Your task to perform on an android device: set an alarm Image 0: 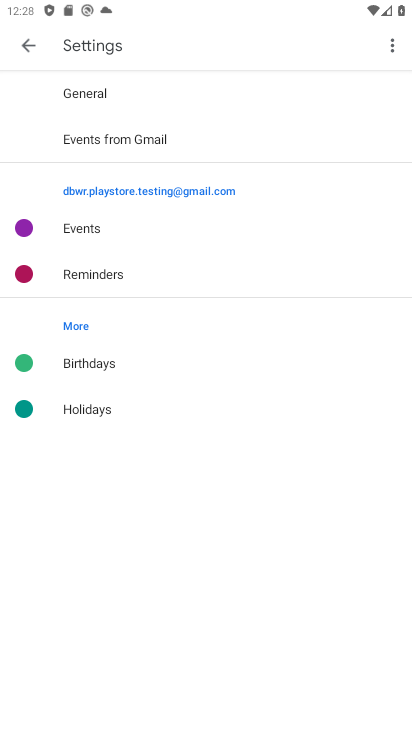
Step 0: press back button
Your task to perform on an android device: set an alarm Image 1: 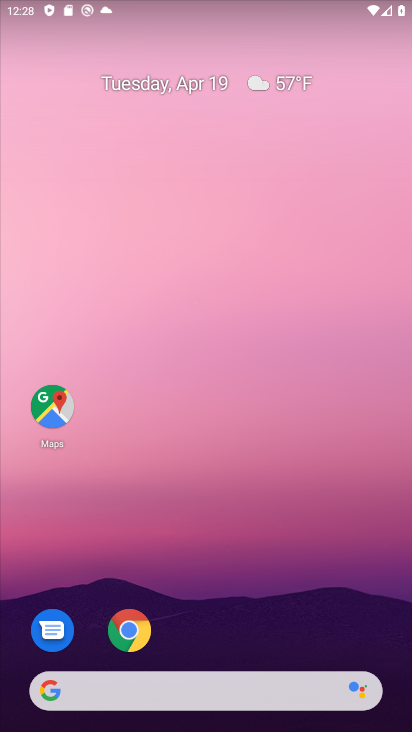
Step 1: drag from (245, 633) to (316, 114)
Your task to perform on an android device: set an alarm Image 2: 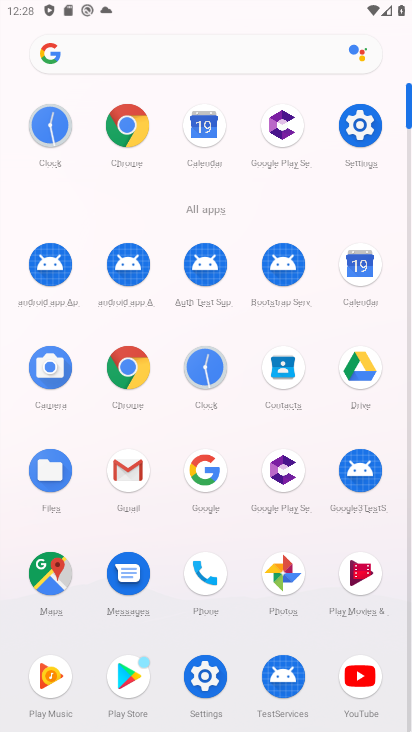
Step 2: click (208, 370)
Your task to perform on an android device: set an alarm Image 3: 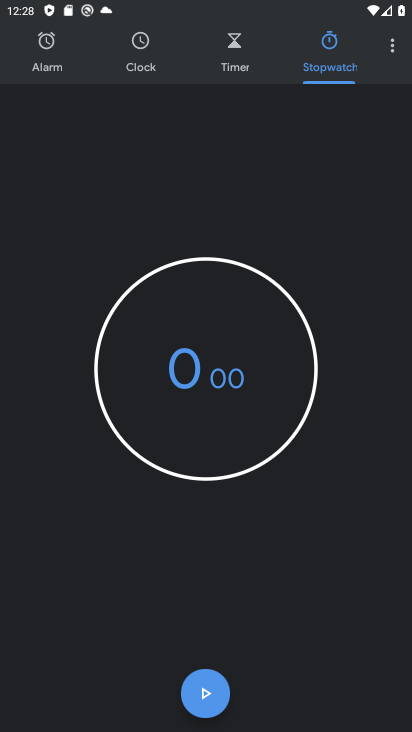
Step 3: click (41, 49)
Your task to perform on an android device: set an alarm Image 4: 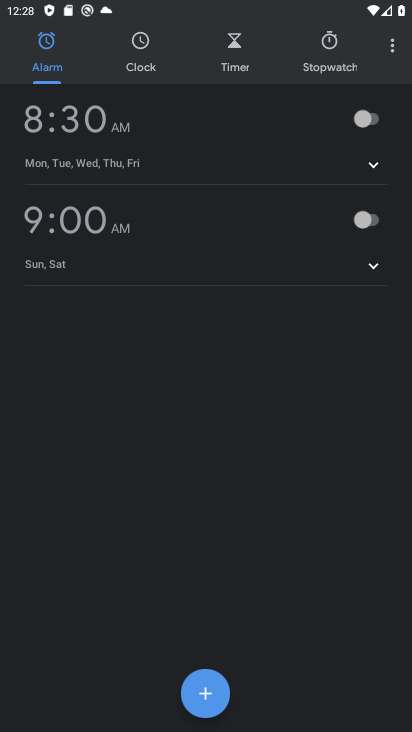
Step 4: click (382, 124)
Your task to perform on an android device: set an alarm Image 5: 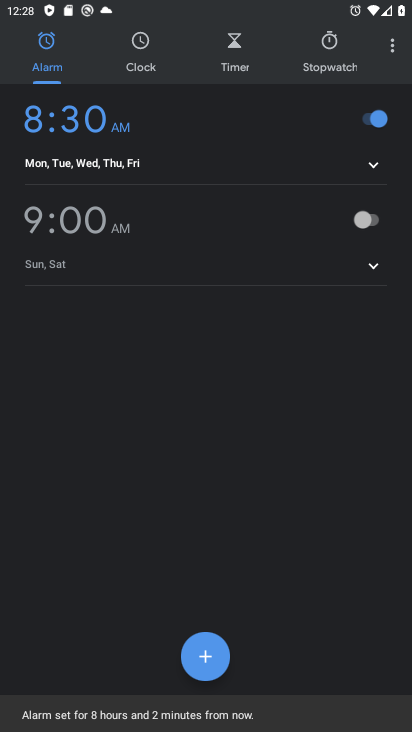
Step 5: task complete